Your task to perform on an android device: Open display settings Image 0: 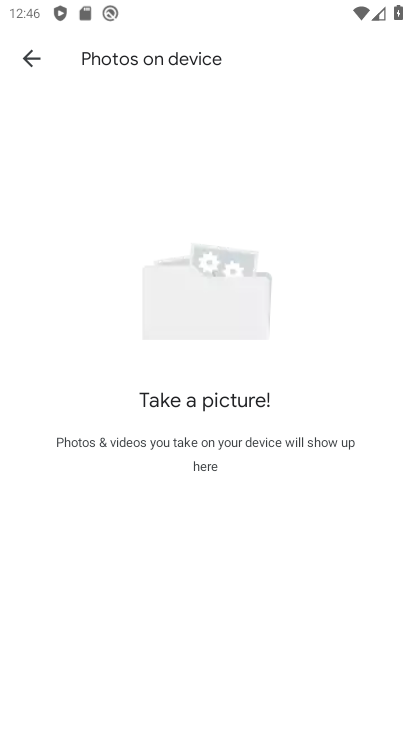
Step 0: press home button
Your task to perform on an android device: Open display settings Image 1: 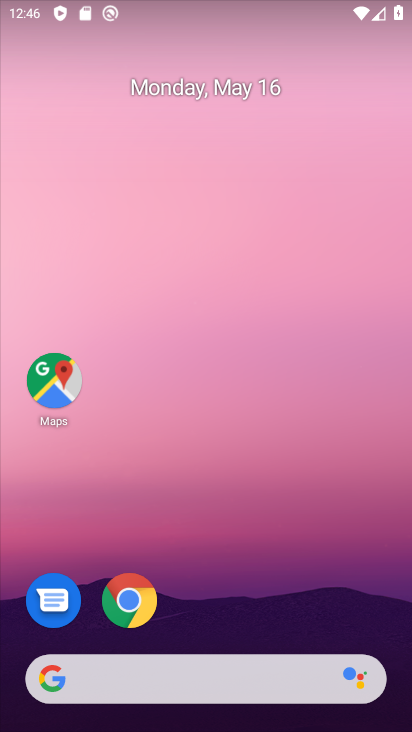
Step 1: drag from (328, 593) to (334, 67)
Your task to perform on an android device: Open display settings Image 2: 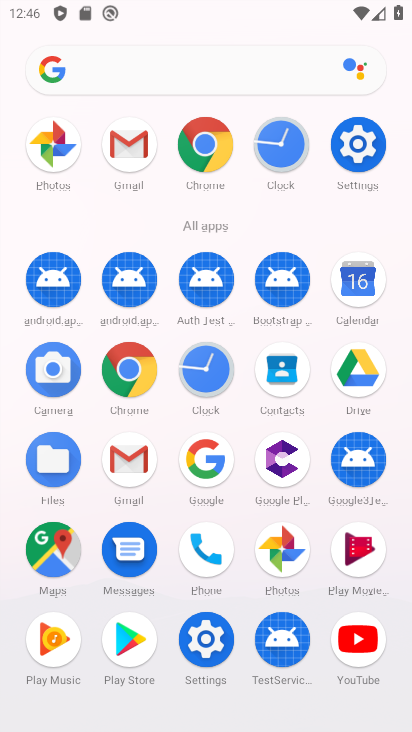
Step 2: click (377, 144)
Your task to perform on an android device: Open display settings Image 3: 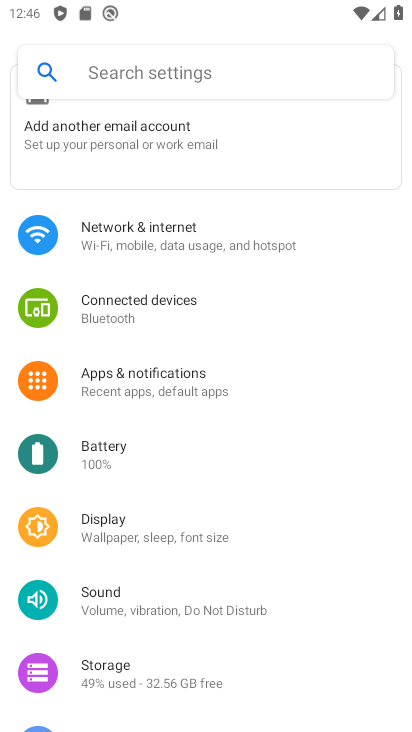
Step 3: drag from (341, 652) to (343, 542)
Your task to perform on an android device: Open display settings Image 4: 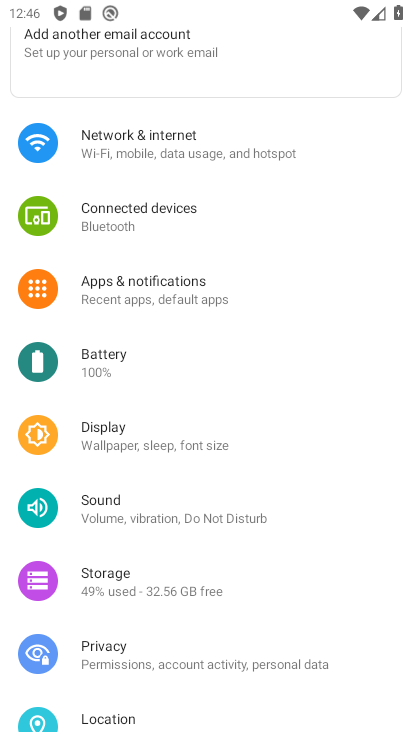
Step 4: drag from (342, 692) to (346, 503)
Your task to perform on an android device: Open display settings Image 5: 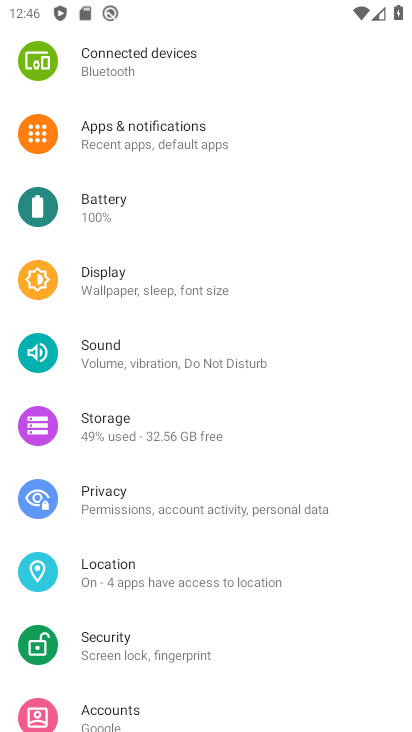
Step 5: drag from (330, 676) to (340, 501)
Your task to perform on an android device: Open display settings Image 6: 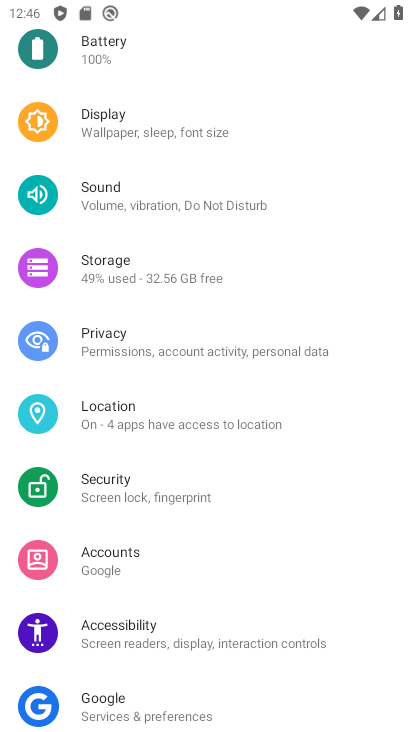
Step 6: drag from (355, 652) to (357, 498)
Your task to perform on an android device: Open display settings Image 7: 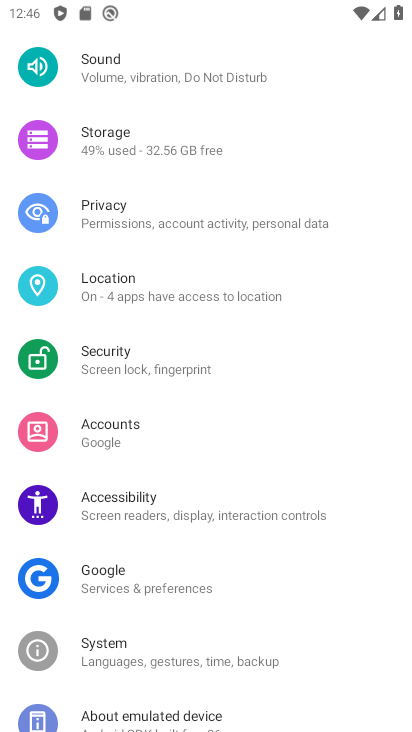
Step 7: drag from (341, 691) to (342, 585)
Your task to perform on an android device: Open display settings Image 8: 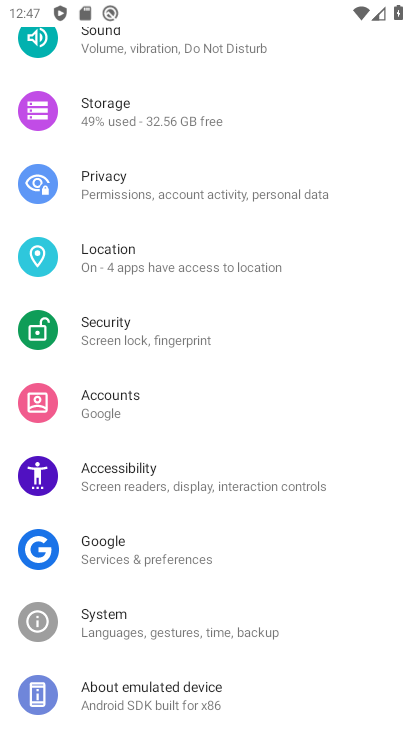
Step 8: drag from (338, 699) to (332, 602)
Your task to perform on an android device: Open display settings Image 9: 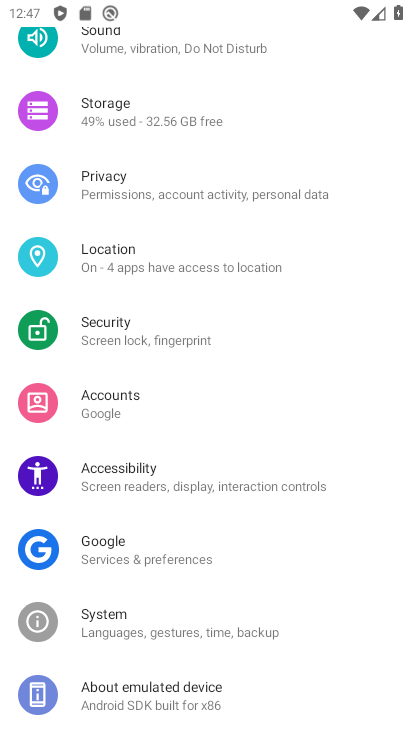
Step 9: drag from (361, 363) to (358, 481)
Your task to perform on an android device: Open display settings Image 10: 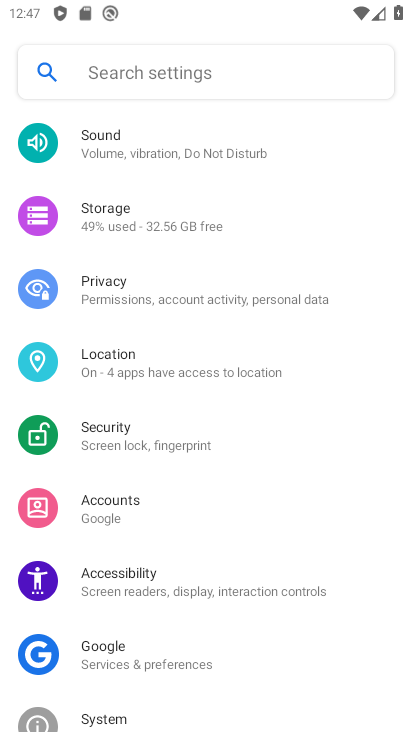
Step 10: drag from (365, 290) to (356, 475)
Your task to perform on an android device: Open display settings Image 11: 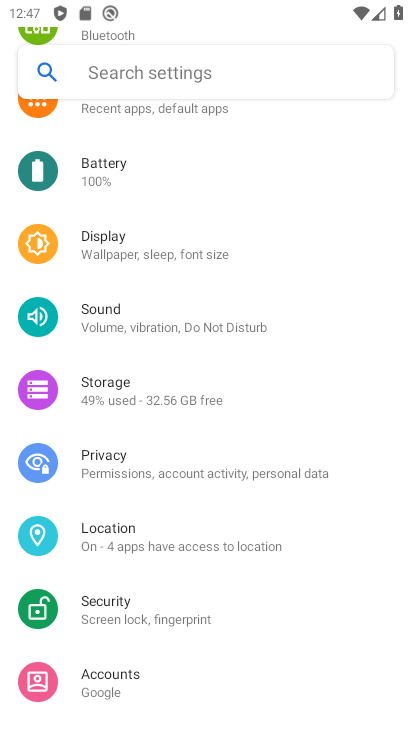
Step 11: click (180, 252)
Your task to perform on an android device: Open display settings Image 12: 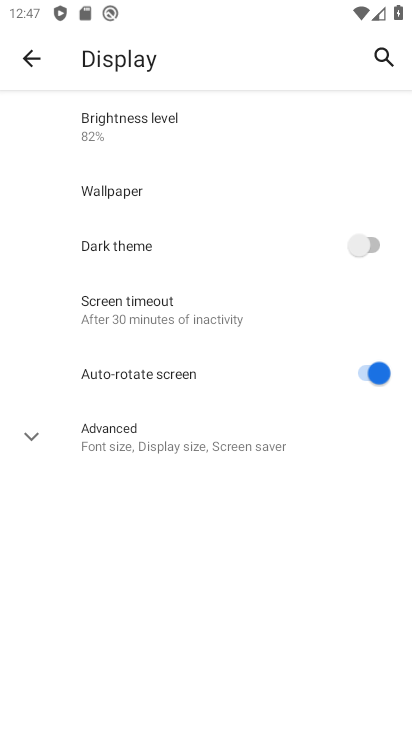
Step 12: task complete